Your task to perform on an android device: Do I have any events today? Image 0: 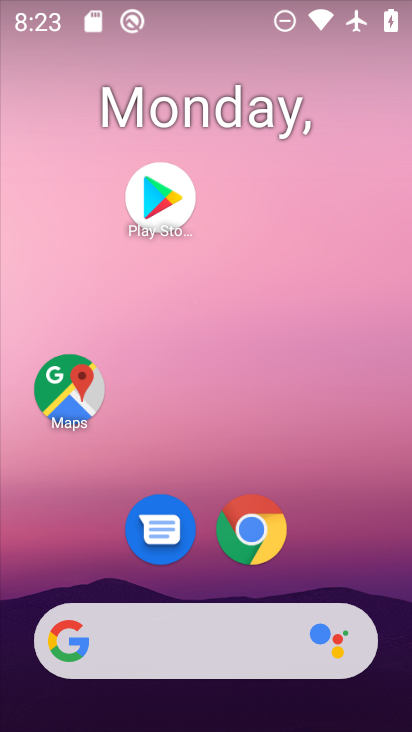
Step 0: drag from (315, 448) to (243, 42)
Your task to perform on an android device: Do I have any events today? Image 1: 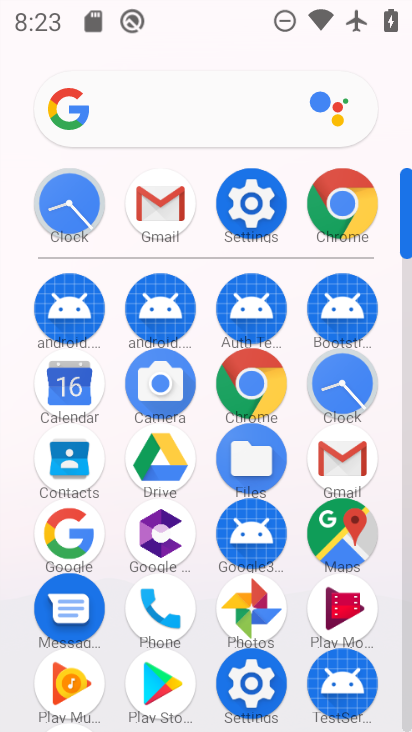
Step 1: click (70, 375)
Your task to perform on an android device: Do I have any events today? Image 2: 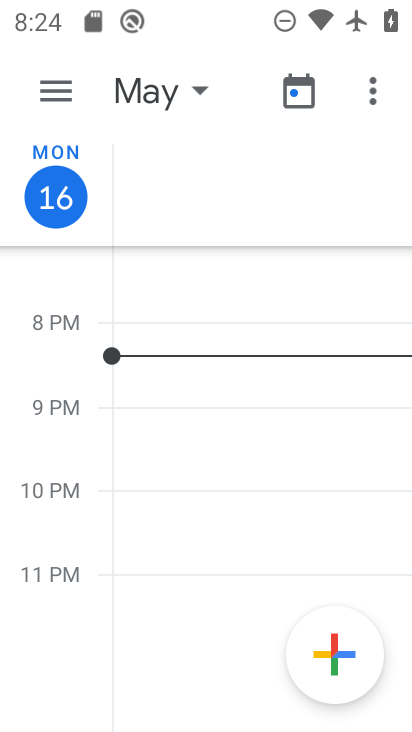
Step 2: task complete